Your task to perform on an android device: toggle sleep mode Image 0: 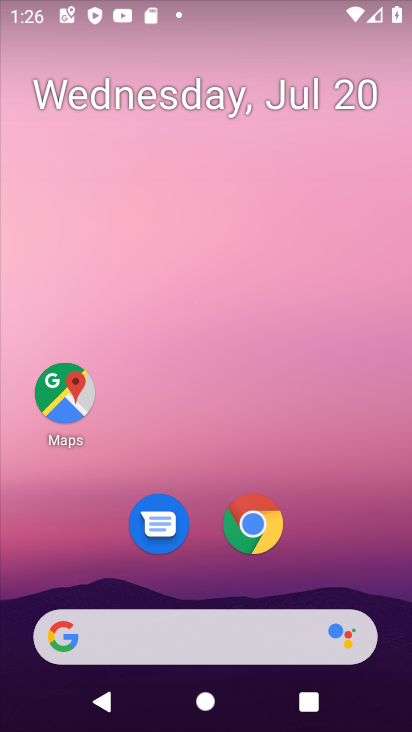
Step 0: drag from (242, 439) to (243, 1)
Your task to perform on an android device: toggle sleep mode Image 1: 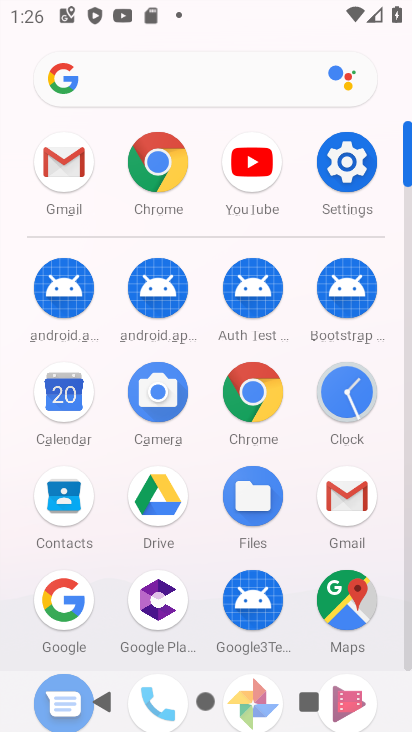
Step 1: click (352, 169)
Your task to perform on an android device: toggle sleep mode Image 2: 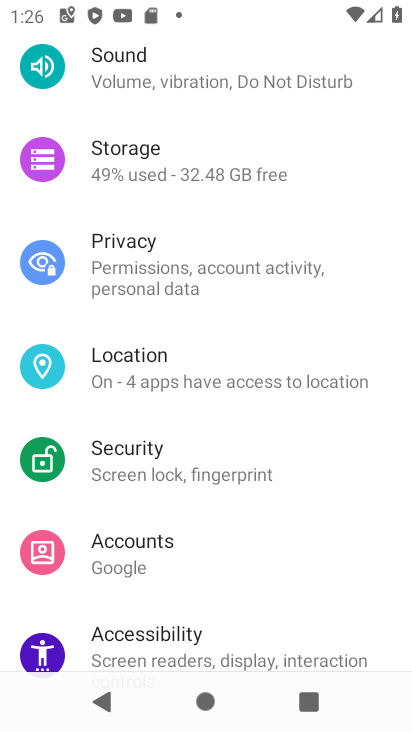
Step 2: drag from (201, 132) to (182, 374)
Your task to perform on an android device: toggle sleep mode Image 3: 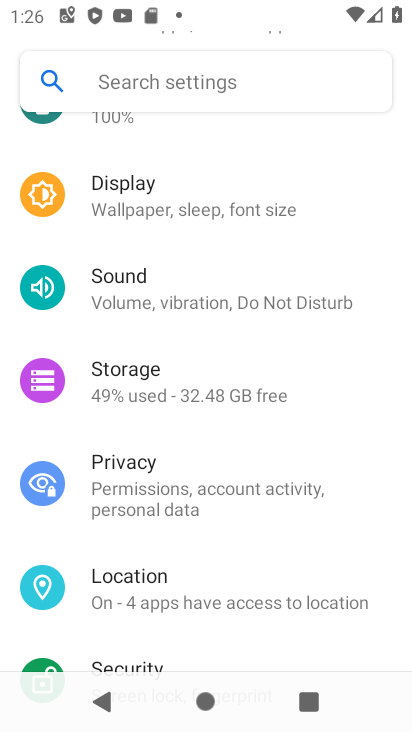
Step 3: click (188, 201)
Your task to perform on an android device: toggle sleep mode Image 4: 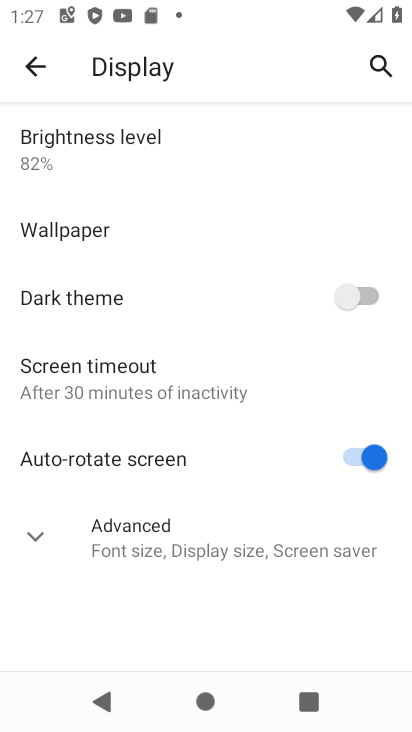
Step 4: click (34, 529)
Your task to perform on an android device: toggle sleep mode Image 5: 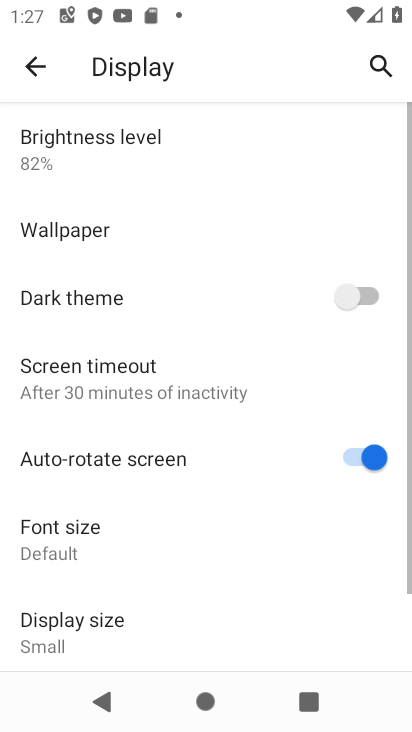
Step 5: task complete